Your task to perform on an android device: Go to Reddit.com Image 0: 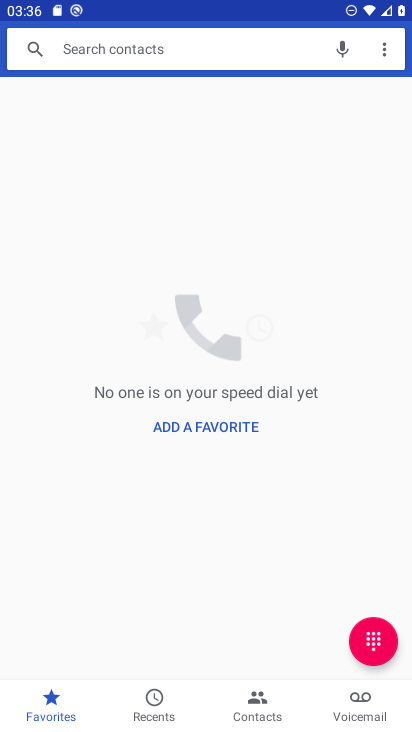
Step 0: press home button
Your task to perform on an android device: Go to Reddit.com Image 1: 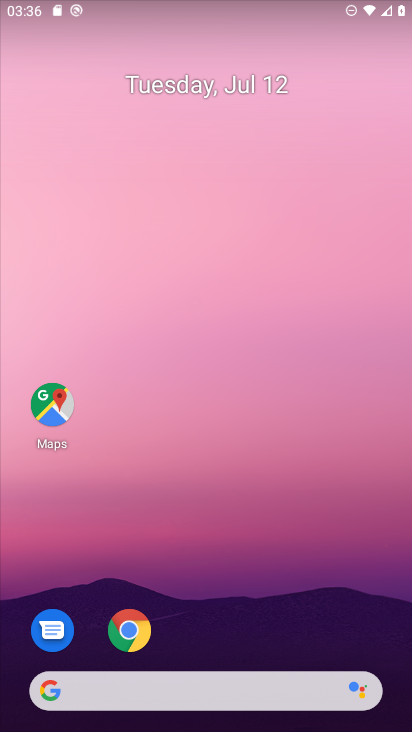
Step 1: click (128, 633)
Your task to perform on an android device: Go to Reddit.com Image 2: 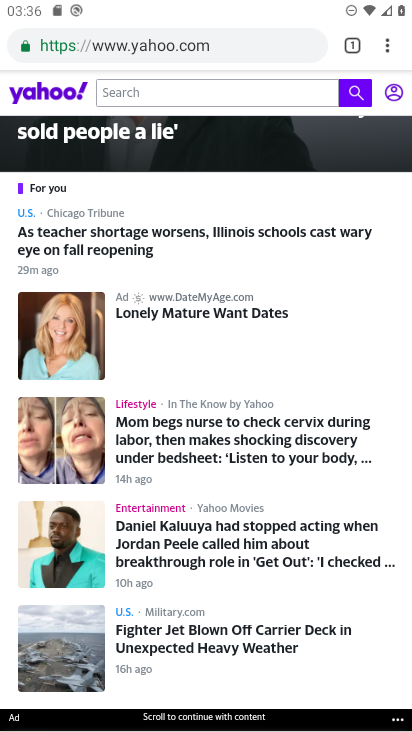
Step 2: click (230, 46)
Your task to perform on an android device: Go to Reddit.com Image 3: 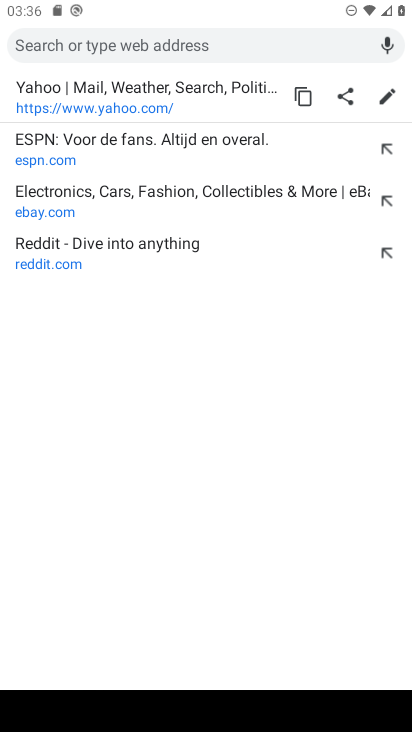
Step 3: type "Reddit.com"
Your task to perform on an android device: Go to Reddit.com Image 4: 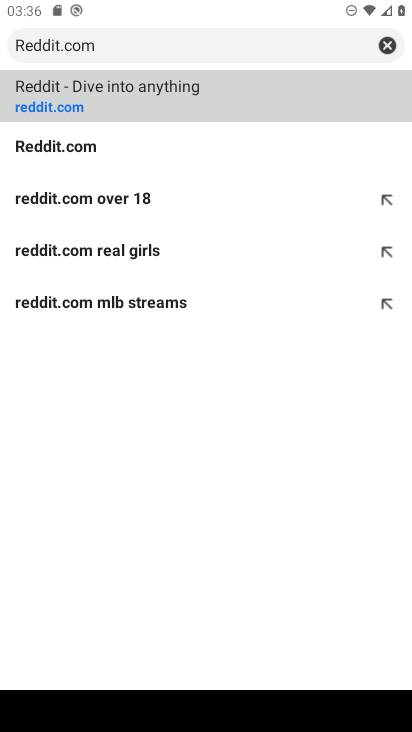
Step 4: click (62, 88)
Your task to perform on an android device: Go to Reddit.com Image 5: 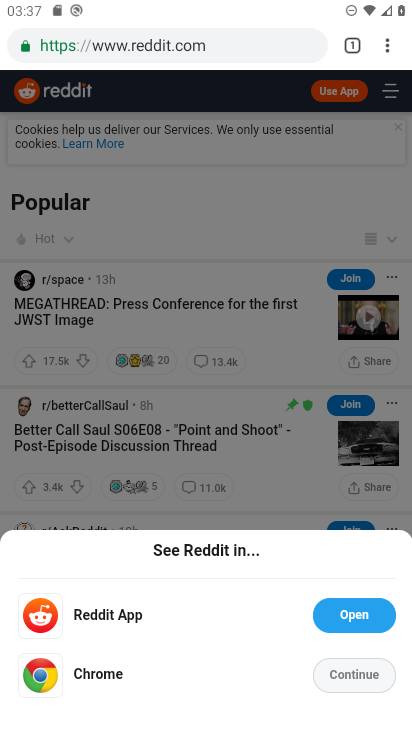
Step 5: task complete